Your task to perform on an android device: turn on the 12-hour format for clock Image 0: 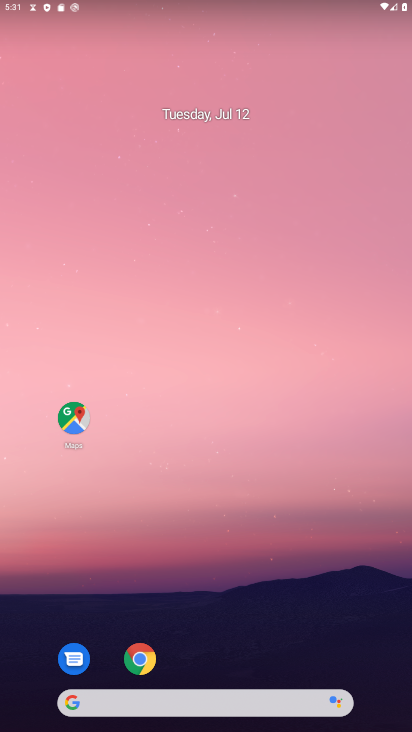
Step 0: drag from (215, 645) to (241, 152)
Your task to perform on an android device: turn on the 12-hour format for clock Image 1: 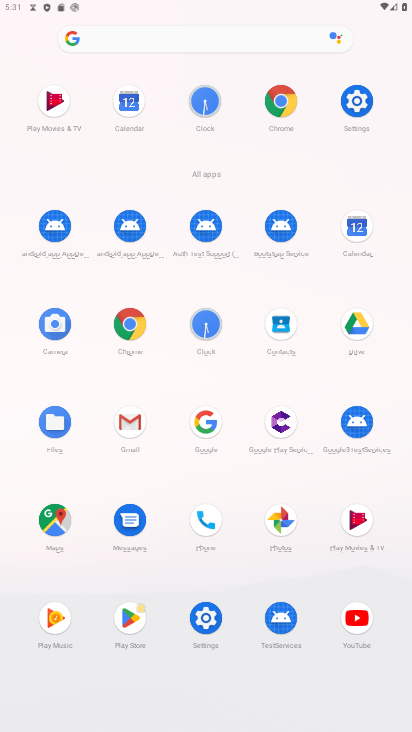
Step 1: click (198, 625)
Your task to perform on an android device: turn on the 12-hour format for clock Image 2: 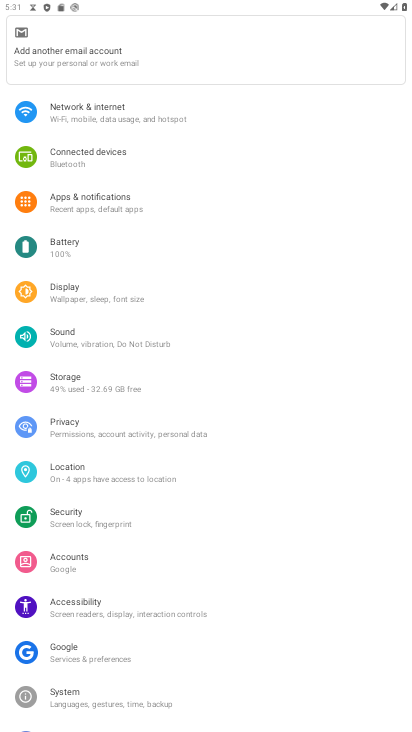
Step 2: drag from (130, 606) to (157, 367)
Your task to perform on an android device: turn on the 12-hour format for clock Image 3: 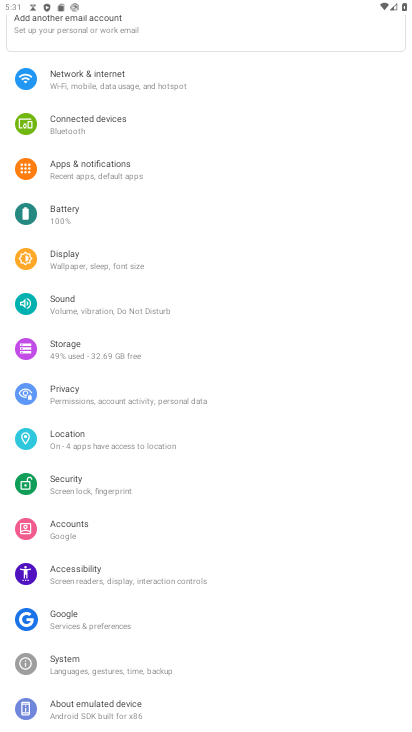
Step 3: click (97, 671)
Your task to perform on an android device: turn on the 12-hour format for clock Image 4: 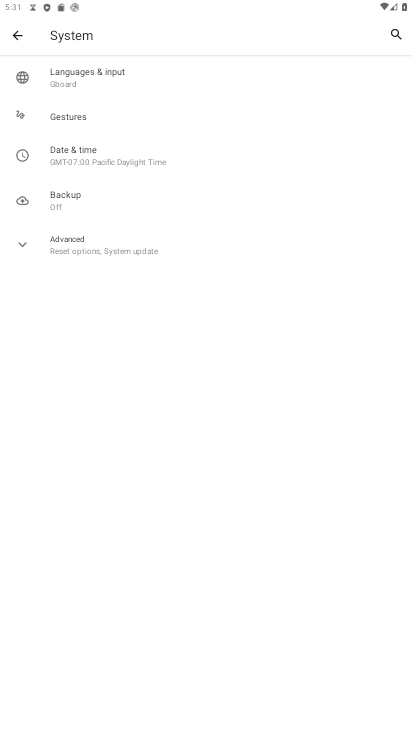
Step 4: click (121, 164)
Your task to perform on an android device: turn on the 12-hour format for clock Image 5: 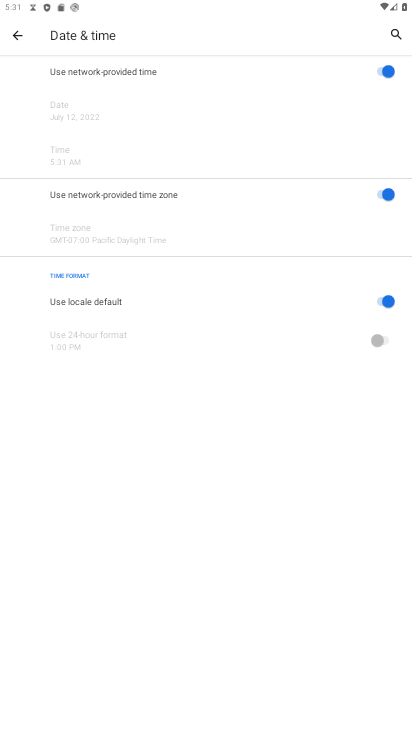
Step 5: task complete